Your task to perform on an android device: turn on bluetooth scan Image 0: 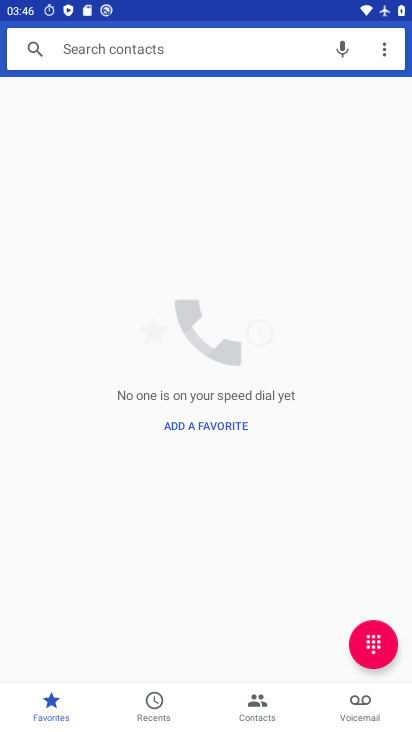
Step 0: press back button
Your task to perform on an android device: turn on bluetooth scan Image 1: 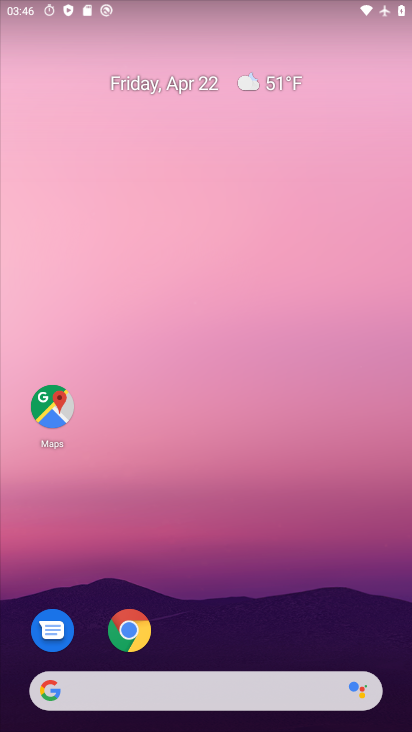
Step 1: drag from (256, 565) to (255, 70)
Your task to perform on an android device: turn on bluetooth scan Image 2: 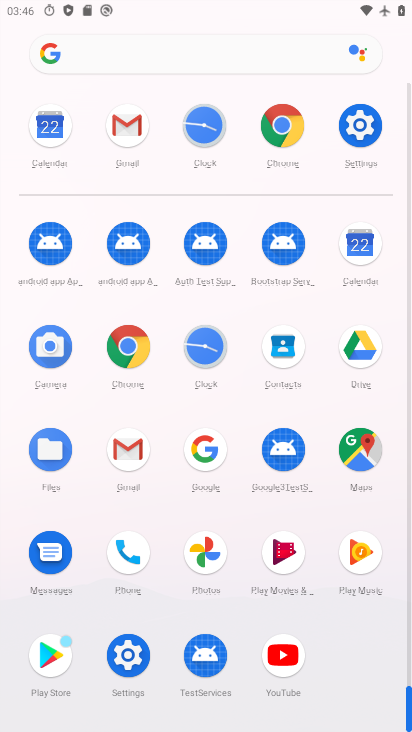
Step 2: click (361, 119)
Your task to perform on an android device: turn on bluetooth scan Image 3: 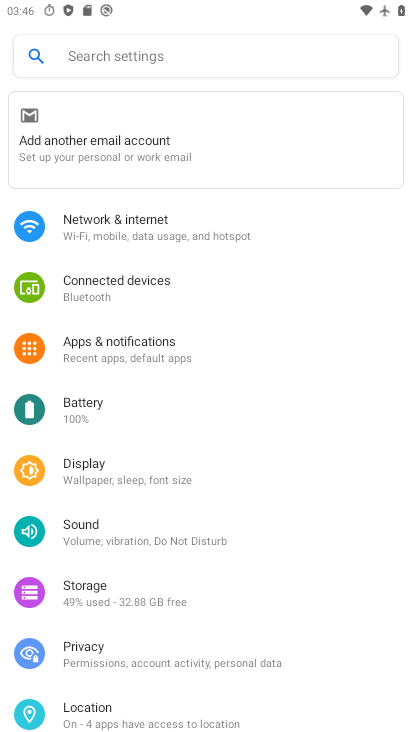
Step 3: drag from (285, 257) to (297, 433)
Your task to perform on an android device: turn on bluetooth scan Image 4: 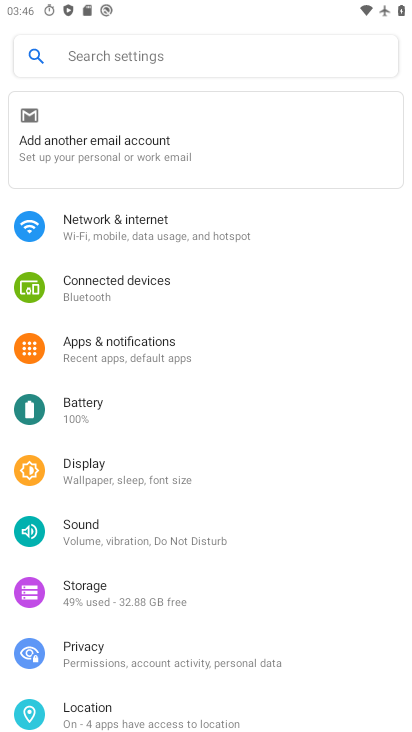
Step 4: drag from (235, 513) to (287, 186)
Your task to perform on an android device: turn on bluetooth scan Image 5: 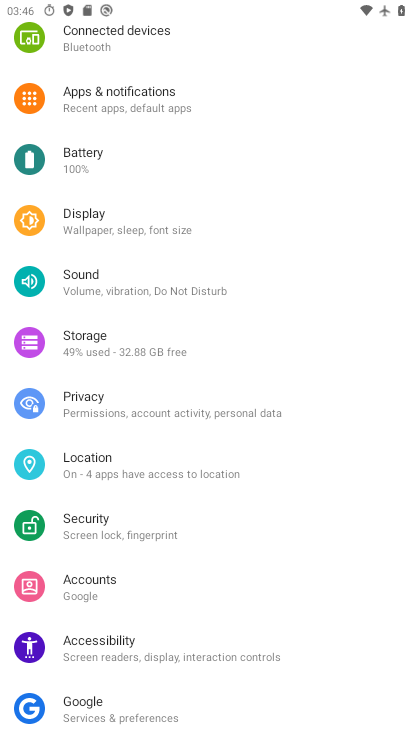
Step 5: drag from (277, 541) to (285, 152)
Your task to perform on an android device: turn on bluetooth scan Image 6: 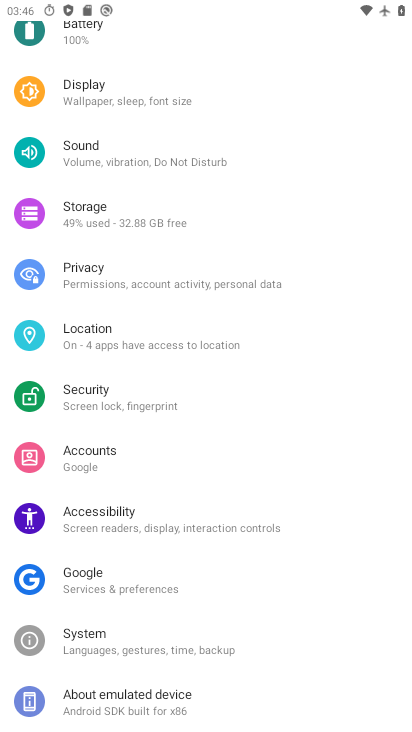
Step 6: drag from (222, 485) to (240, 169)
Your task to perform on an android device: turn on bluetooth scan Image 7: 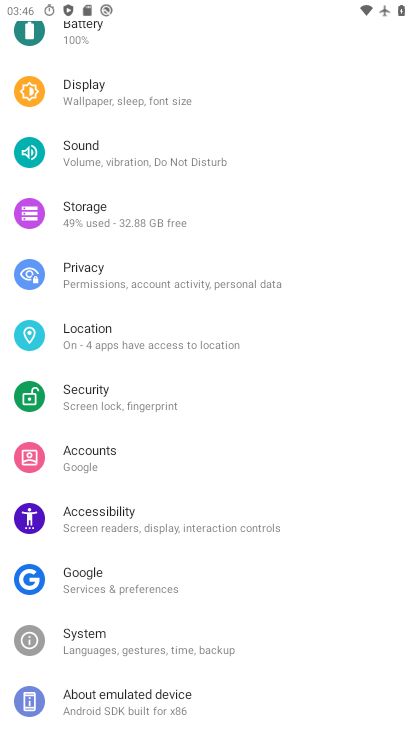
Step 7: drag from (190, 305) to (170, 583)
Your task to perform on an android device: turn on bluetooth scan Image 8: 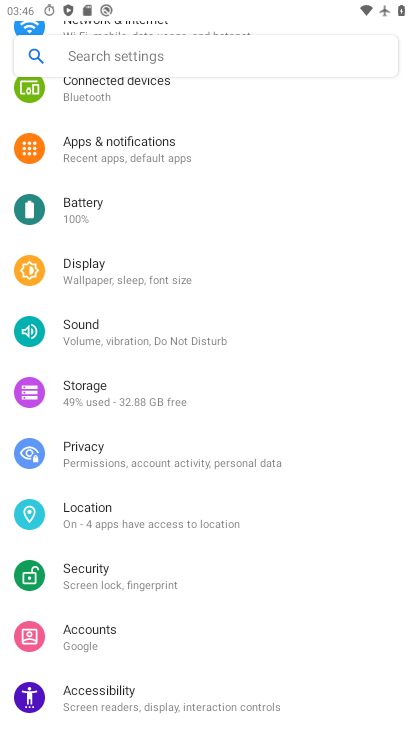
Step 8: drag from (200, 264) to (186, 548)
Your task to perform on an android device: turn on bluetooth scan Image 9: 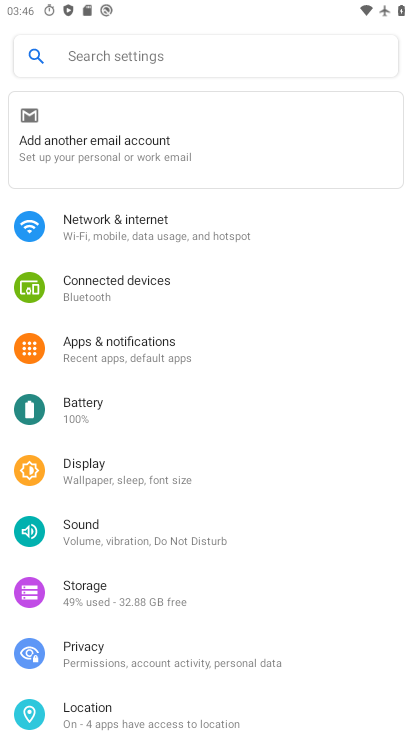
Step 9: click (162, 715)
Your task to perform on an android device: turn on bluetooth scan Image 10: 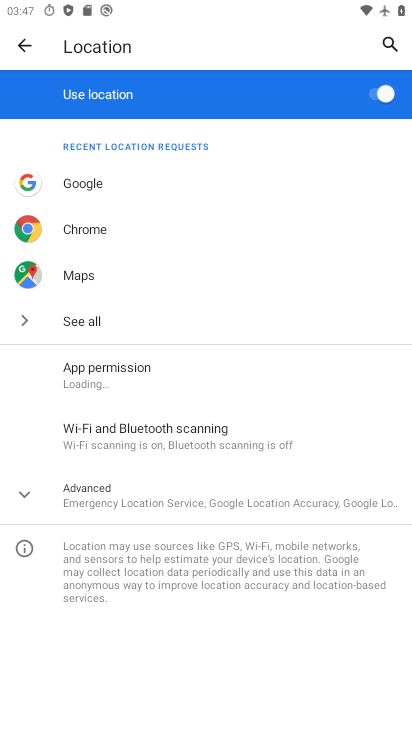
Step 10: click (162, 429)
Your task to perform on an android device: turn on bluetooth scan Image 11: 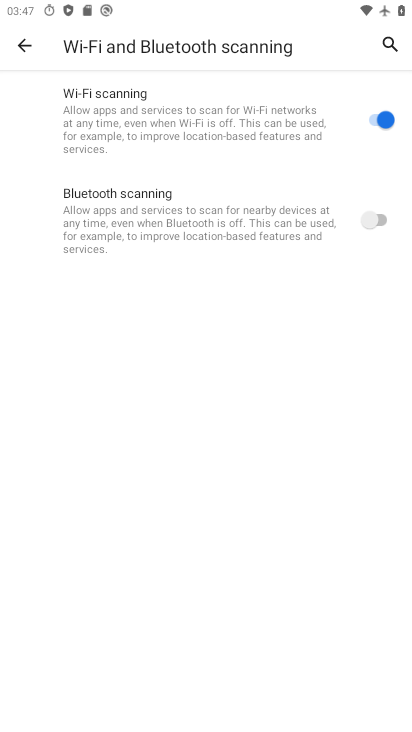
Step 11: click (378, 217)
Your task to perform on an android device: turn on bluetooth scan Image 12: 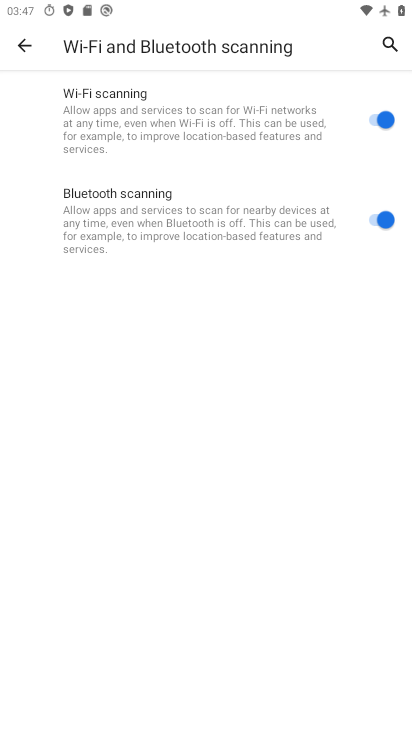
Step 12: task complete